Your task to perform on an android device: What's on my calendar today? Image 0: 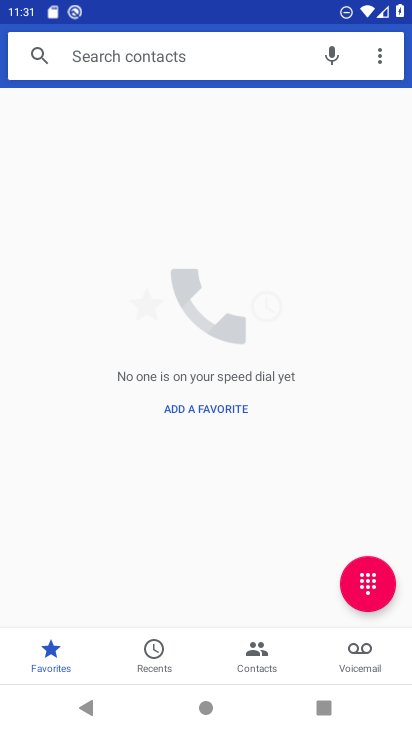
Step 0: press home button
Your task to perform on an android device: What's on my calendar today? Image 1: 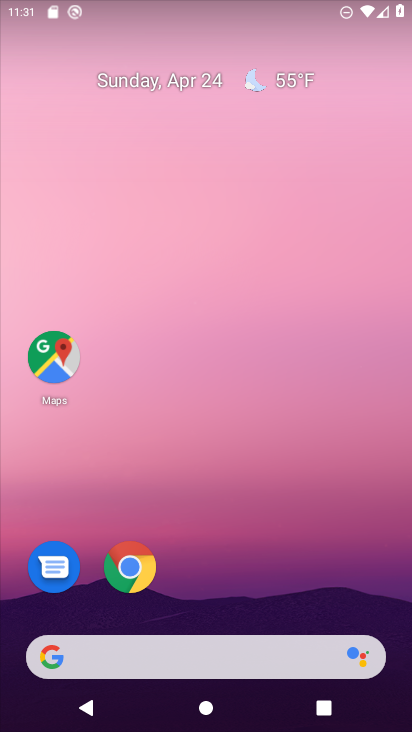
Step 1: drag from (397, 645) to (410, 149)
Your task to perform on an android device: What's on my calendar today? Image 2: 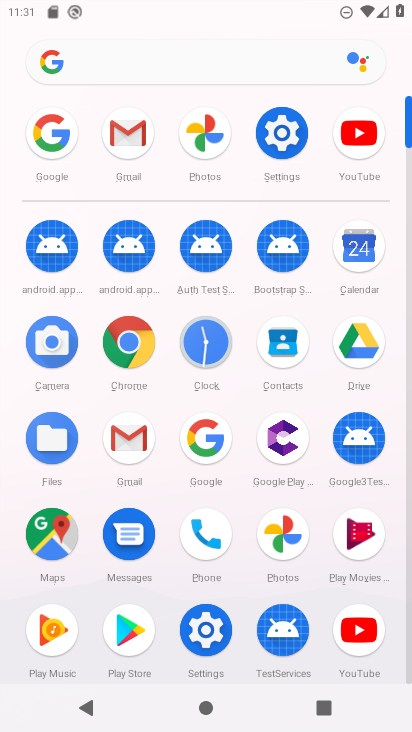
Step 2: click (361, 249)
Your task to perform on an android device: What's on my calendar today? Image 3: 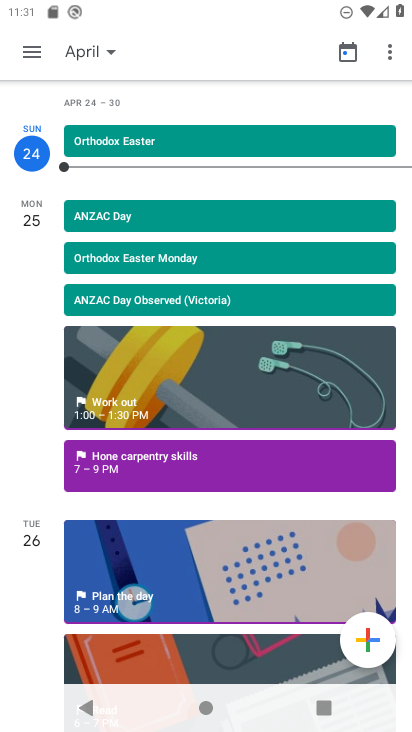
Step 3: click (30, 148)
Your task to perform on an android device: What's on my calendar today? Image 4: 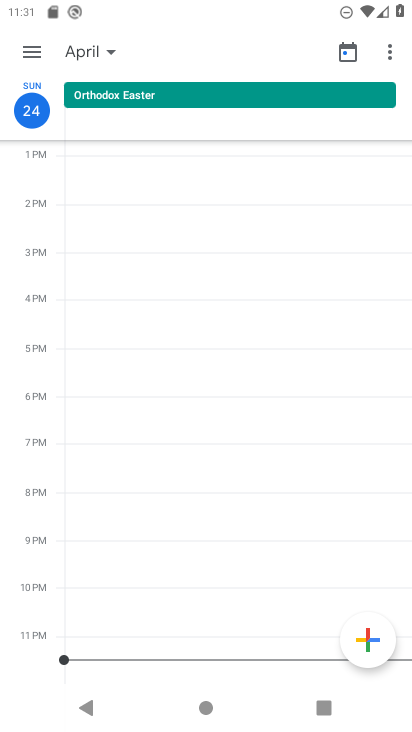
Step 4: click (106, 46)
Your task to perform on an android device: What's on my calendar today? Image 5: 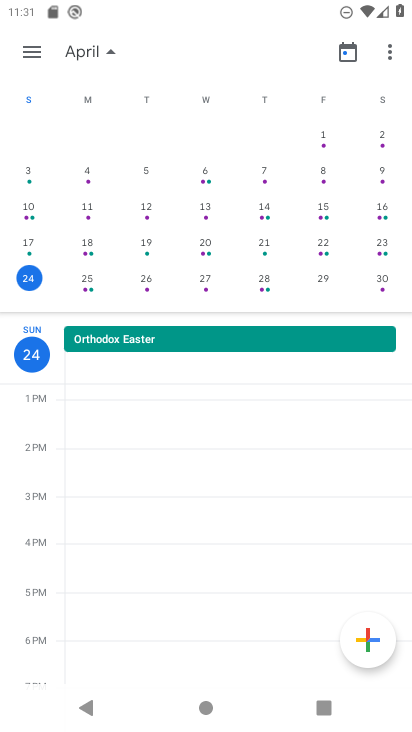
Step 5: click (28, 278)
Your task to perform on an android device: What's on my calendar today? Image 6: 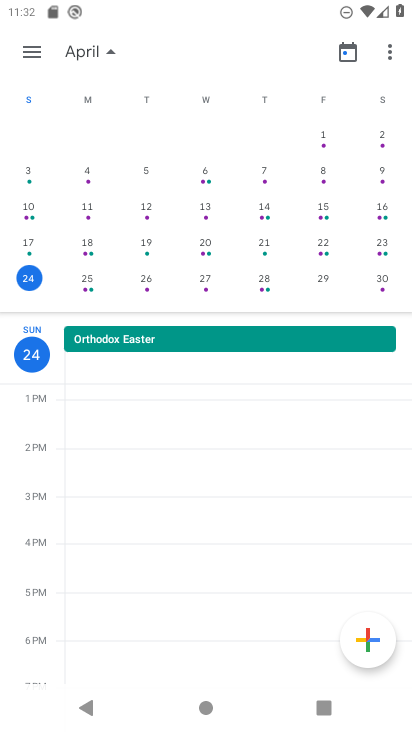
Step 6: click (32, 272)
Your task to perform on an android device: What's on my calendar today? Image 7: 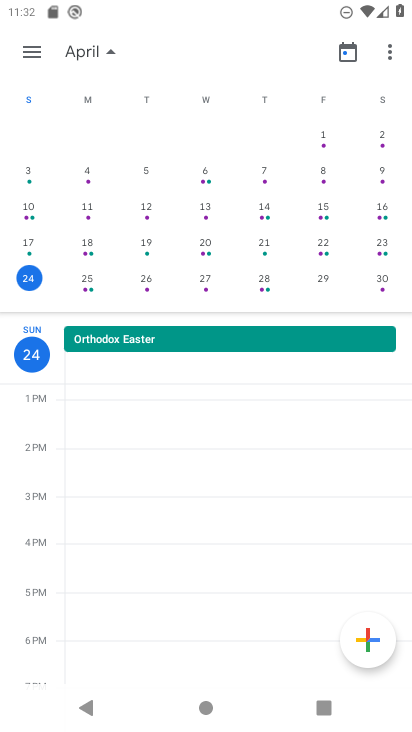
Step 7: click (32, 350)
Your task to perform on an android device: What's on my calendar today? Image 8: 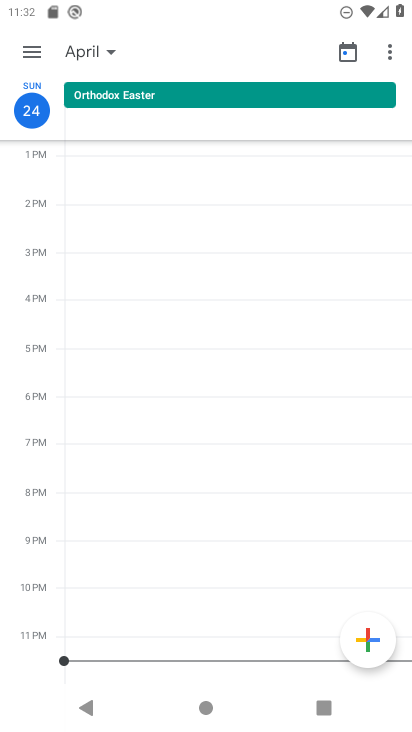
Step 8: task complete